Your task to perform on an android device: open device folders in google photos Image 0: 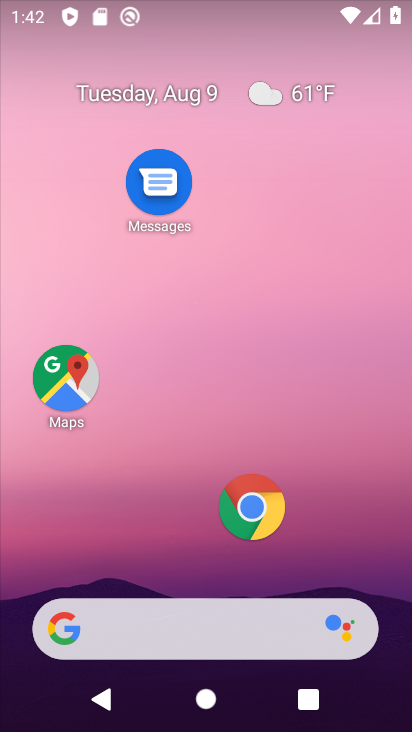
Step 0: drag from (145, 564) to (301, 68)
Your task to perform on an android device: open device folders in google photos Image 1: 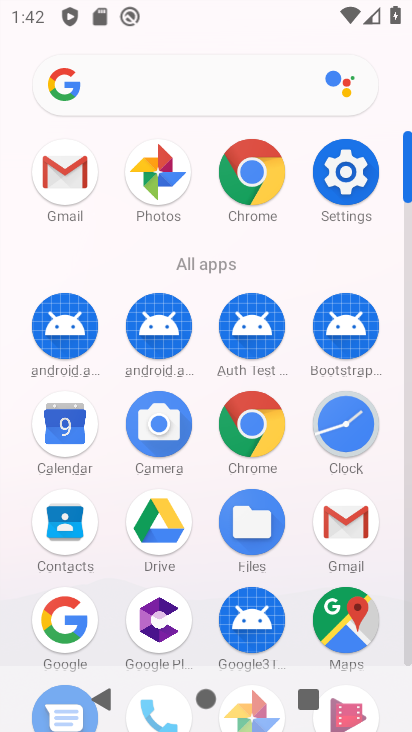
Step 1: click (168, 174)
Your task to perform on an android device: open device folders in google photos Image 2: 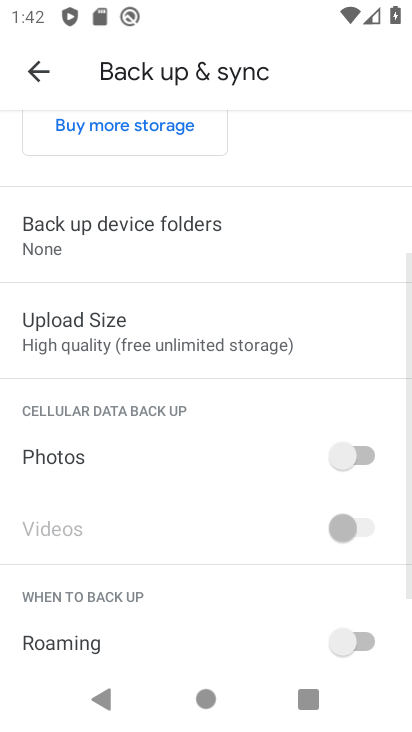
Step 2: click (27, 61)
Your task to perform on an android device: open device folders in google photos Image 3: 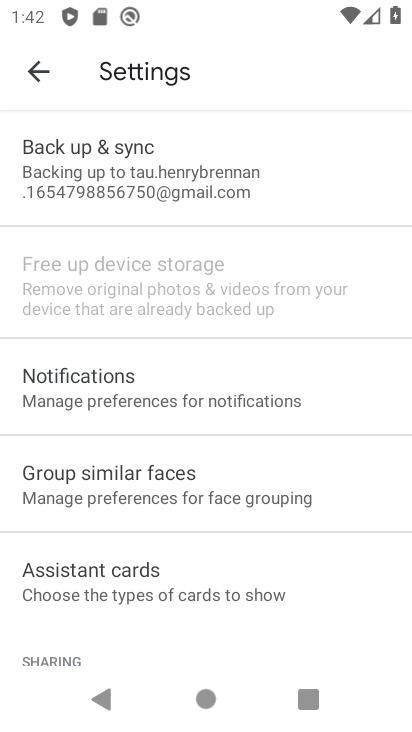
Step 3: click (41, 86)
Your task to perform on an android device: open device folders in google photos Image 4: 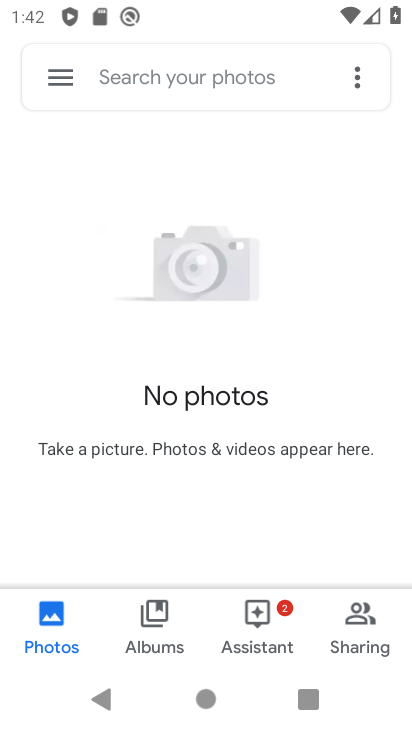
Step 4: click (63, 75)
Your task to perform on an android device: open device folders in google photos Image 5: 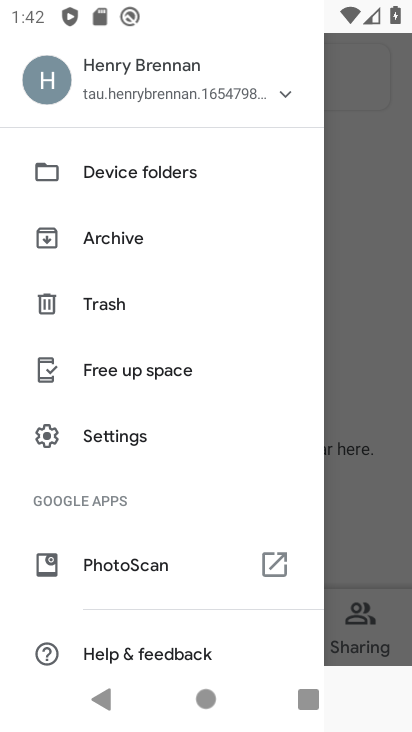
Step 5: click (126, 163)
Your task to perform on an android device: open device folders in google photos Image 6: 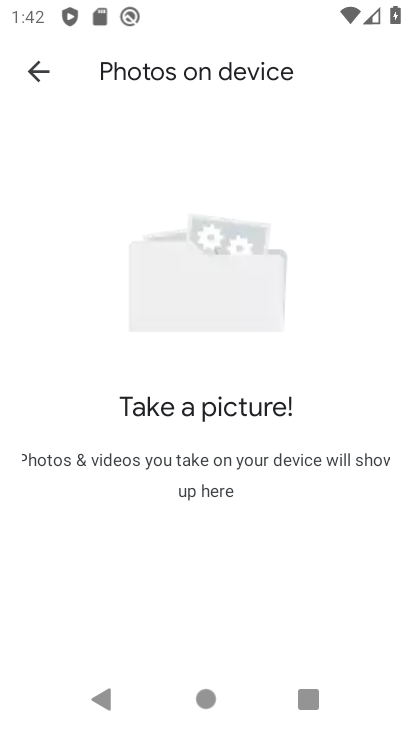
Step 6: task complete